Your task to perform on an android device: find which apps use the phone's location Image 0: 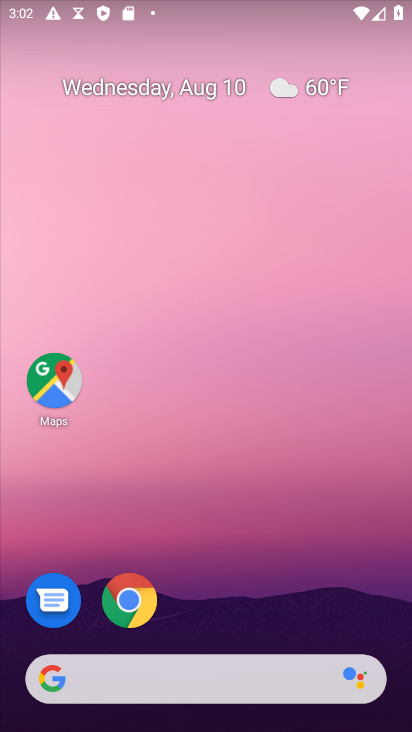
Step 0: press home button
Your task to perform on an android device: find which apps use the phone's location Image 1: 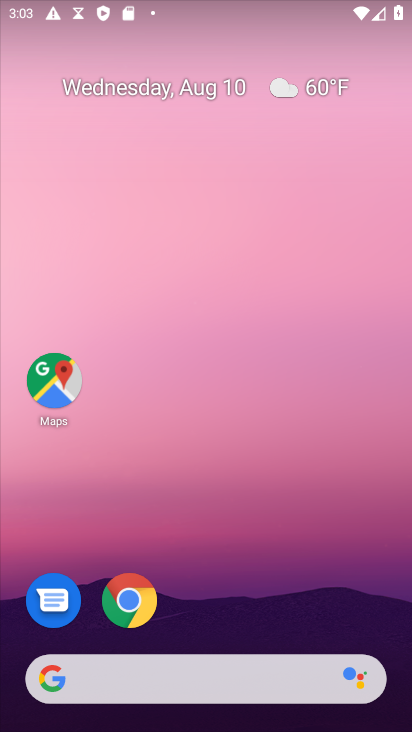
Step 1: drag from (205, 624) to (253, 162)
Your task to perform on an android device: find which apps use the phone's location Image 2: 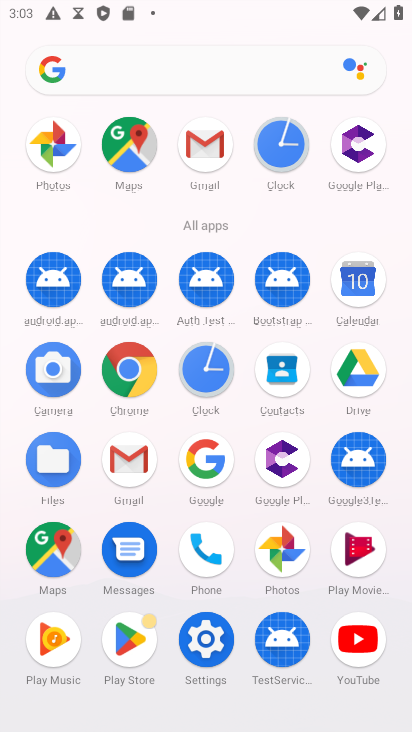
Step 2: click (209, 643)
Your task to perform on an android device: find which apps use the phone's location Image 3: 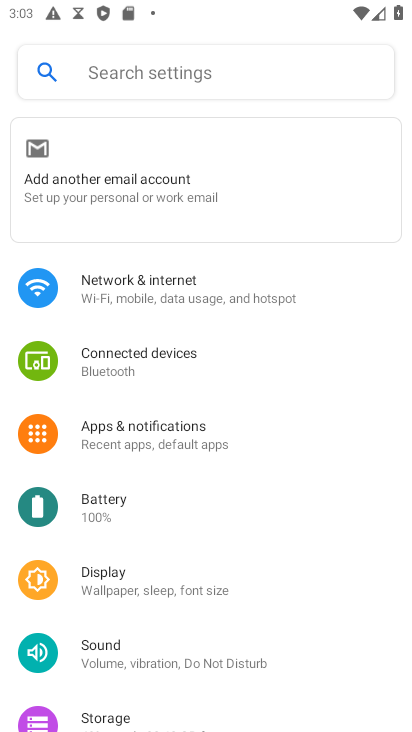
Step 3: drag from (285, 612) to (262, 302)
Your task to perform on an android device: find which apps use the phone's location Image 4: 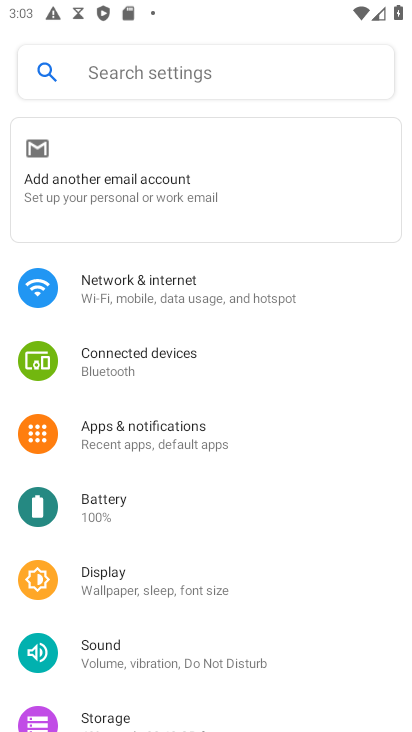
Step 4: drag from (309, 701) to (405, 145)
Your task to perform on an android device: find which apps use the phone's location Image 5: 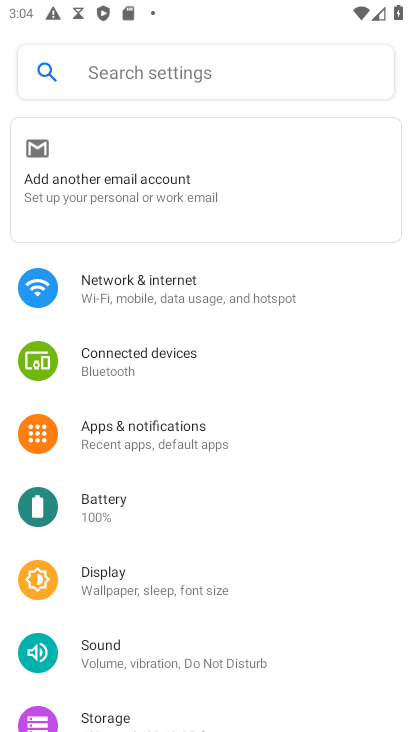
Step 5: drag from (339, 598) to (353, 312)
Your task to perform on an android device: find which apps use the phone's location Image 6: 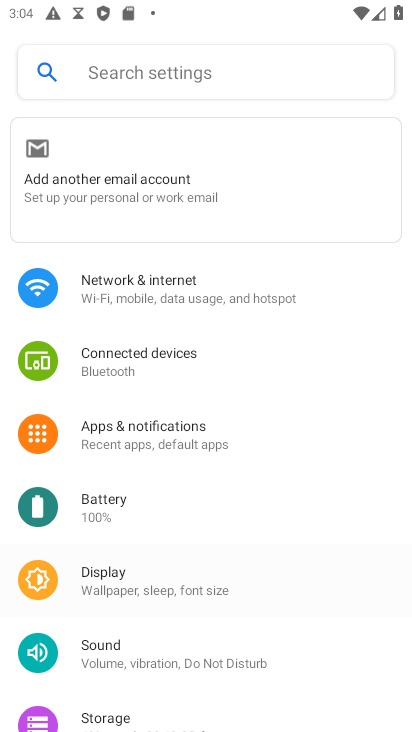
Step 6: drag from (339, 680) to (359, 189)
Your task to perform on an android device: find which apps use the phone's location Image 7: 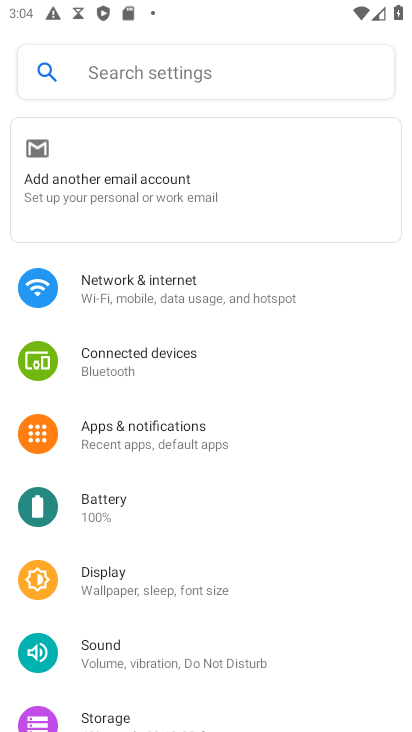
Step 7: drag from (354, 677) to (343, 114)
Your task to perform on an android device: find which apps use the phone's location Image 8: 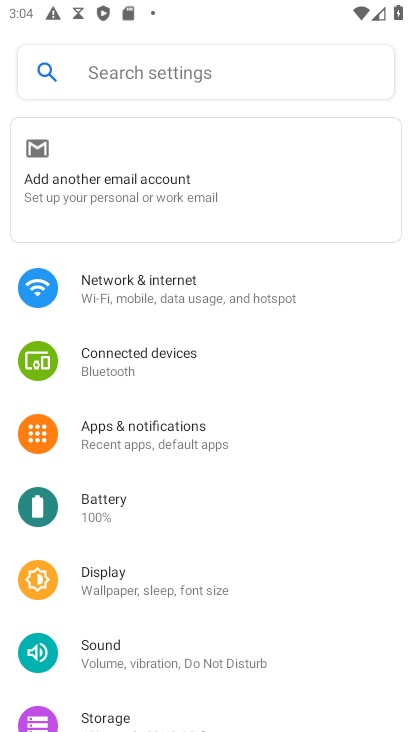
Step 8: drag from (355, 711) to (286, 121)
Your task to perform on an android device: find which apps use the phone's location Image 9: 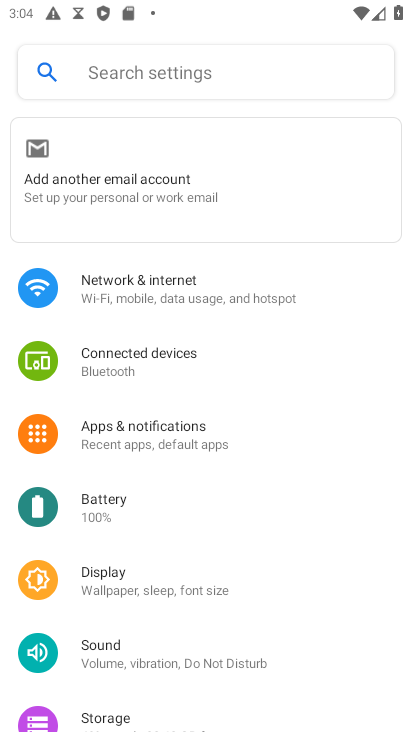
Step 9: drag from (296, 685) to (293, 23)
Your task to perform on an android device: find which apps use the phone's location Image 10: 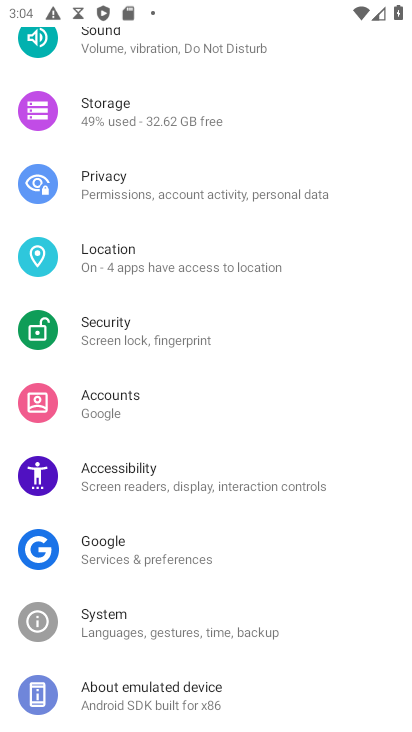
Step 10: click (121, 257)
Your task to perform on an android device: find which apps use the phone's location Image 11: 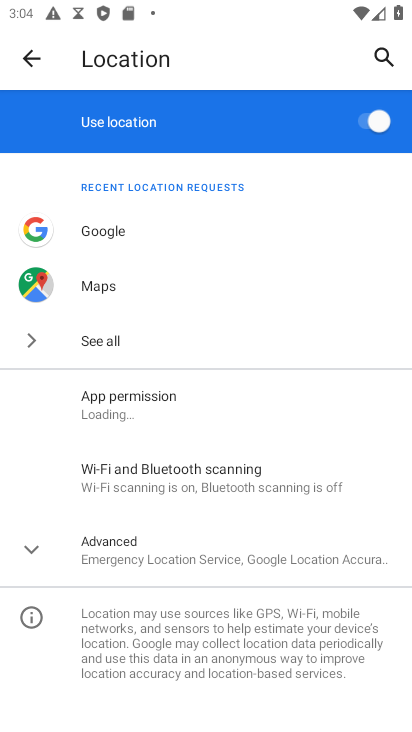
Step 11: click (109, 399)
Your task to perform on an android device: find which apps use the phone's location Image 12: 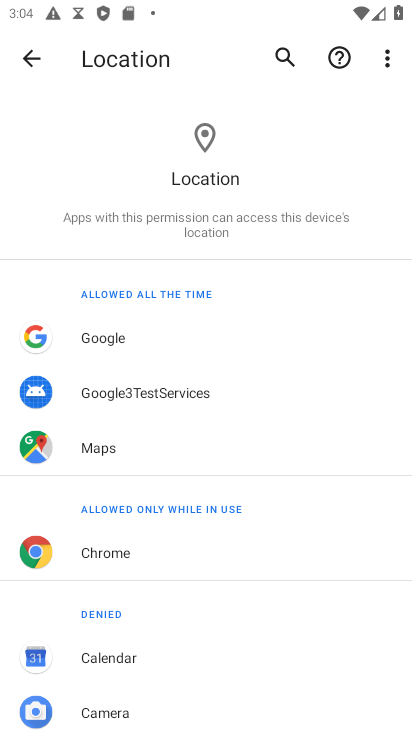
Step 12: task complete